Your task to perform on an android device: Search for "dell xps" on amazon, select the first entry, add it to the cart, then select checkout. Image 0: 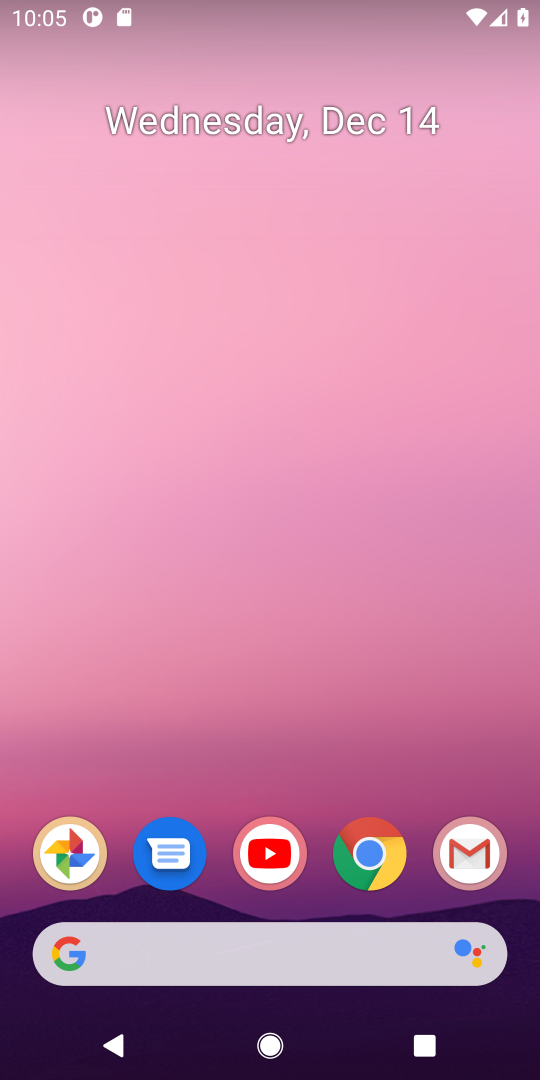
Step 0: click (381, 865)
Your task to perform on an android device: Search for "dell xps" on amazon, select the first entry, add it to the cart, then select checkout. Image 1: 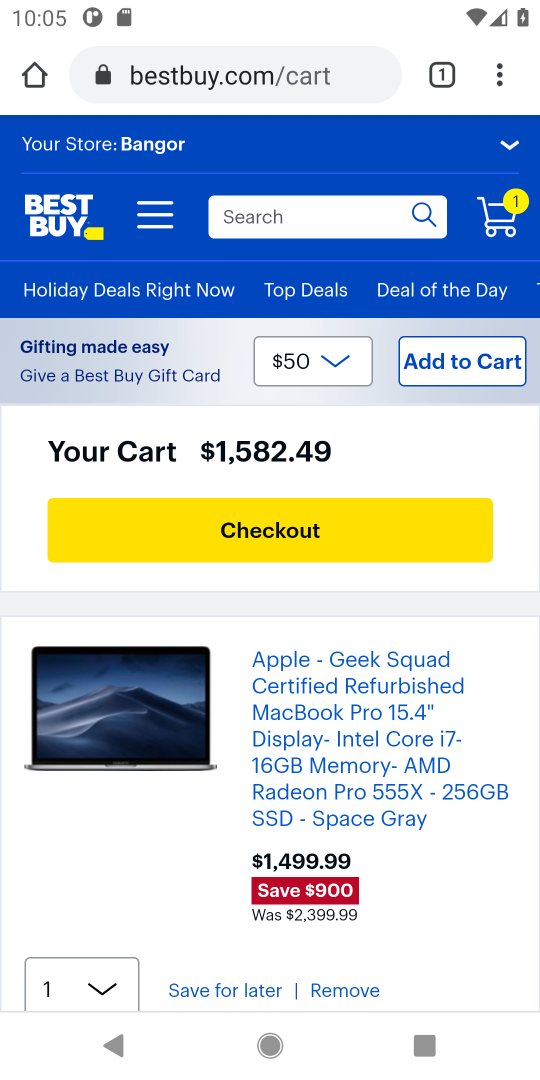
Step 1: click (34, 80)
Your task to perform on an android device: Search for "dell xps" on amazon, select the first entry, add it to the cart, then select checkout. Image 2: 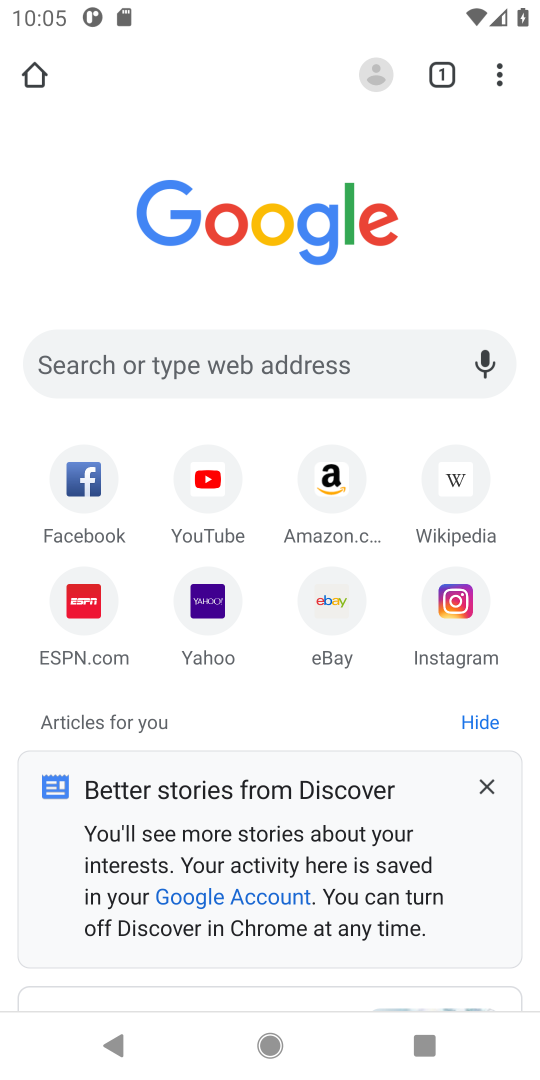
Step 2: click (343, 474)
Your task to perform on an android device: Search for "dell xps" on amazon, select the first entry, add it to the cart, then select checkout. Image 3: 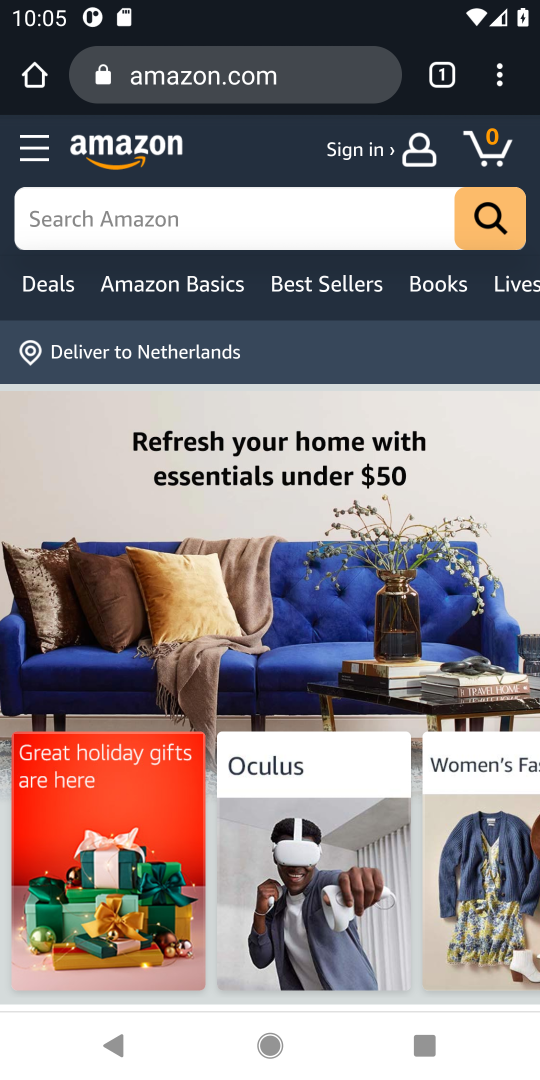
Step 3: click (392, 207)
Your task to perform on an android device: Search for "dell xps" on amazon, select the first entry, add it to the cart, then select checkout. Image 4: 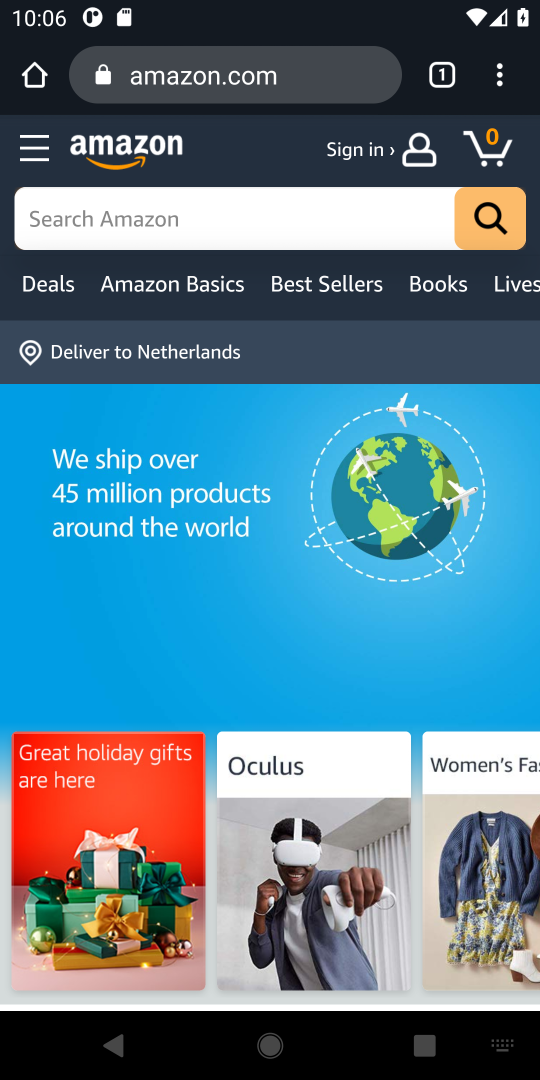
Step 4: press enter
Your task to perform on an android device: Search for "dell xps" on amazon, select the first entry, add it to the cart, then select checkout. Image 5: 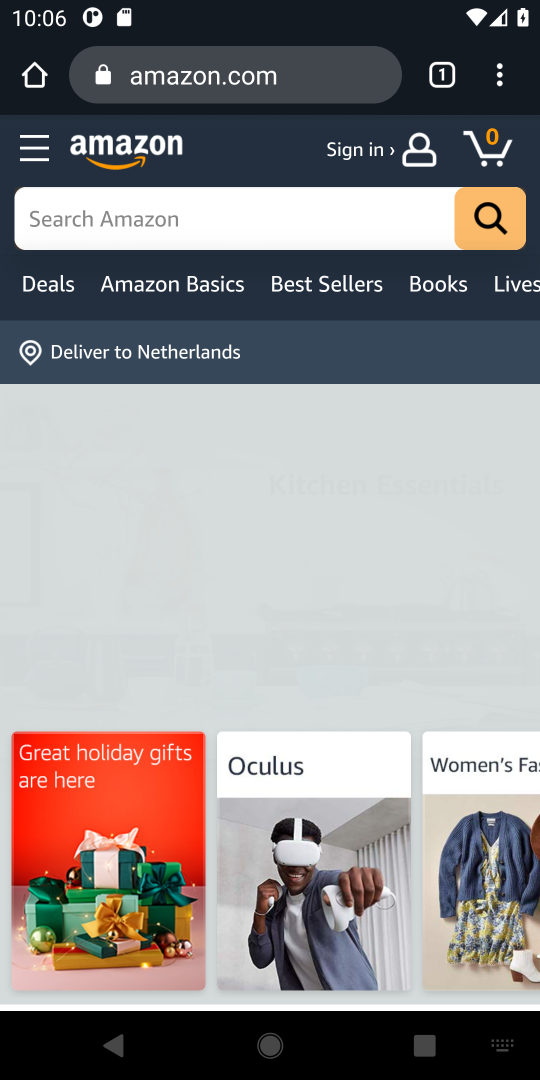
Step 5: type "dell xps"
Your task to perform on an android device: Search for "dell xps" on amazon, select the first entry, add it to the cart, then select checkout. Image 6: 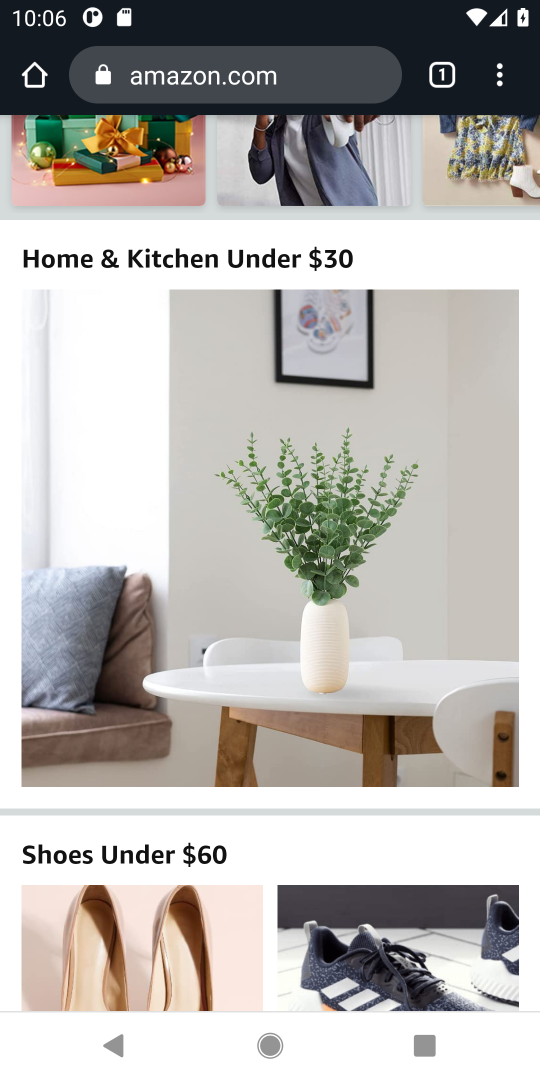
Step 6: press back button
Your task to perform on an android device: Search for "dell xps" on amazon, select the first entry, add it to the cart, then select checkout. Image 7: 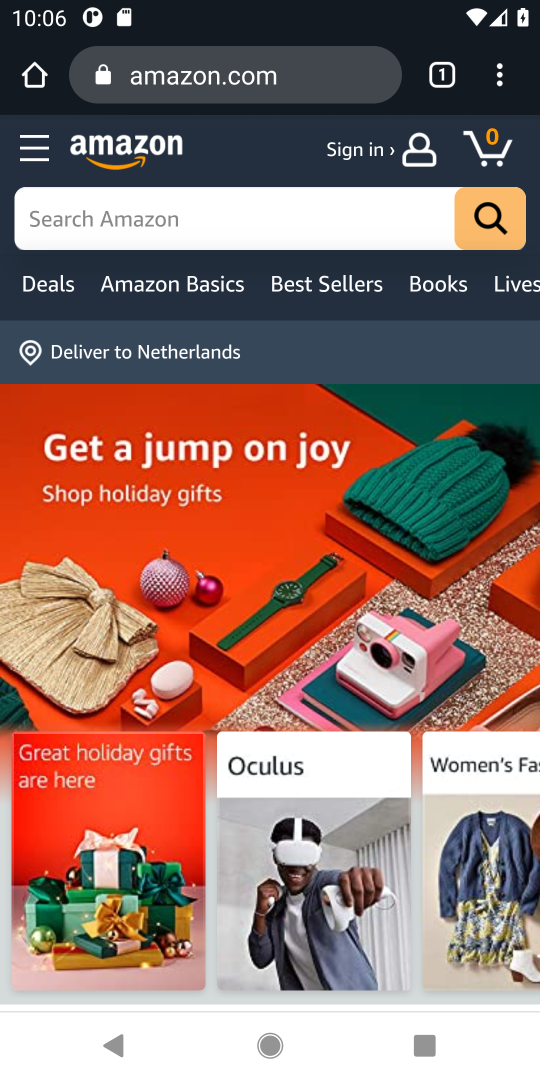
Step 7: click (392, 198)
Your task to perform on an android device: Search for "dell xps" on amazon, select the first entry, add it to the cart, then select checkout. Image 8: 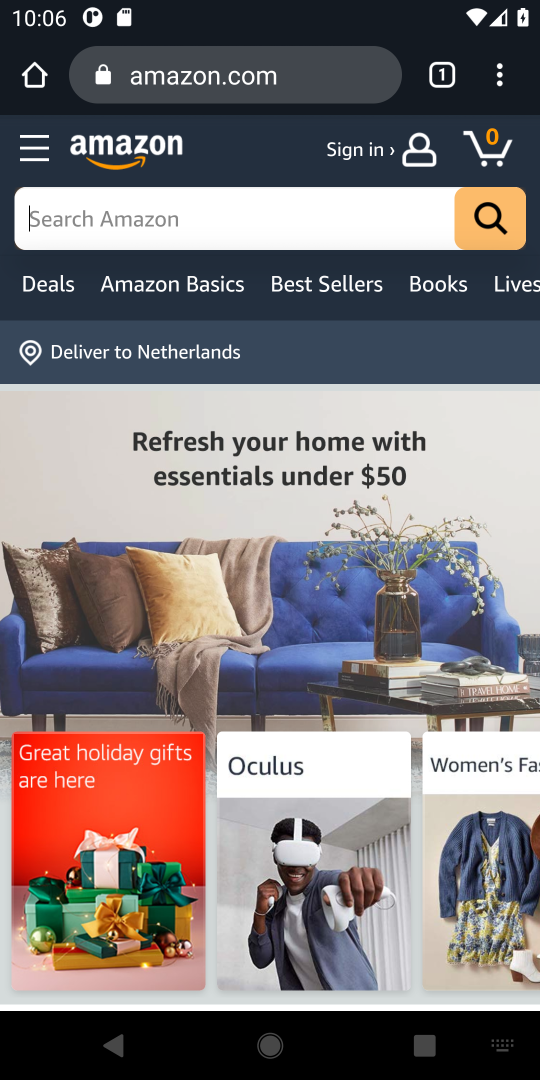
Step 8: click (392, 198)
Your task to perform on an android device: Search for "dell xps" on amazon, select the first entry, add it to the cart, then select checkout. Image 9: 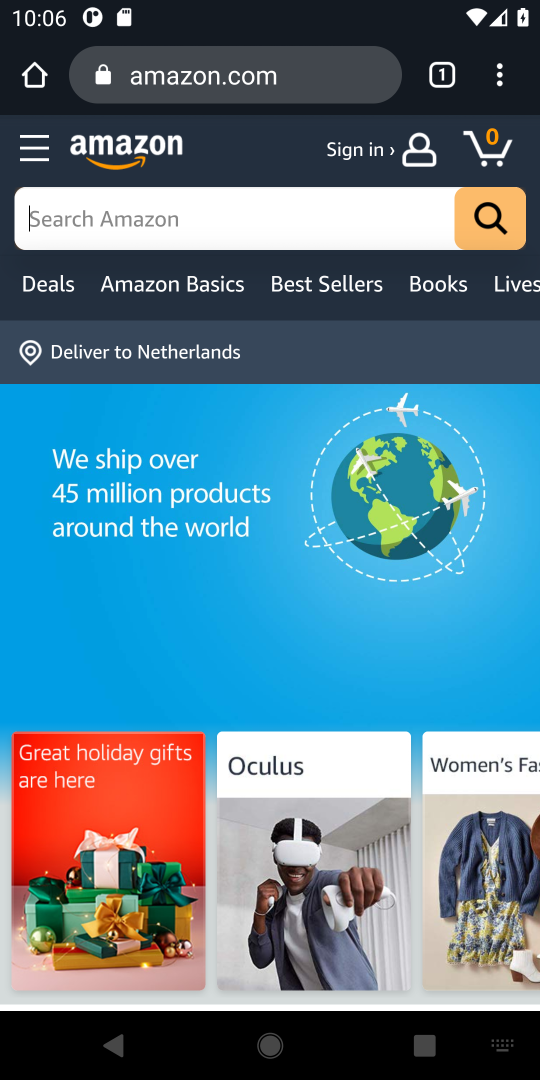
Step 9: press enter
Your task to perform on an android device: Search for "dell xps" on amazon, select the first entry, add it to the cart, then select checkout. Image 10: 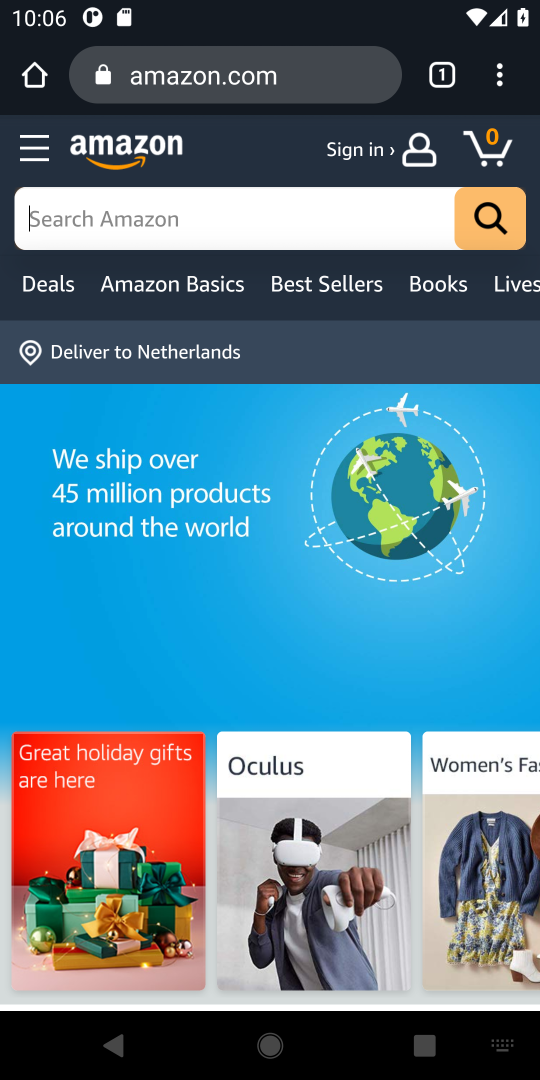
Step 10: type "dell xps"
Your task to perform on an android device: Search for "dell xps" on amazon, select the first entry, add it to the cart, then select checkout. Image 11: 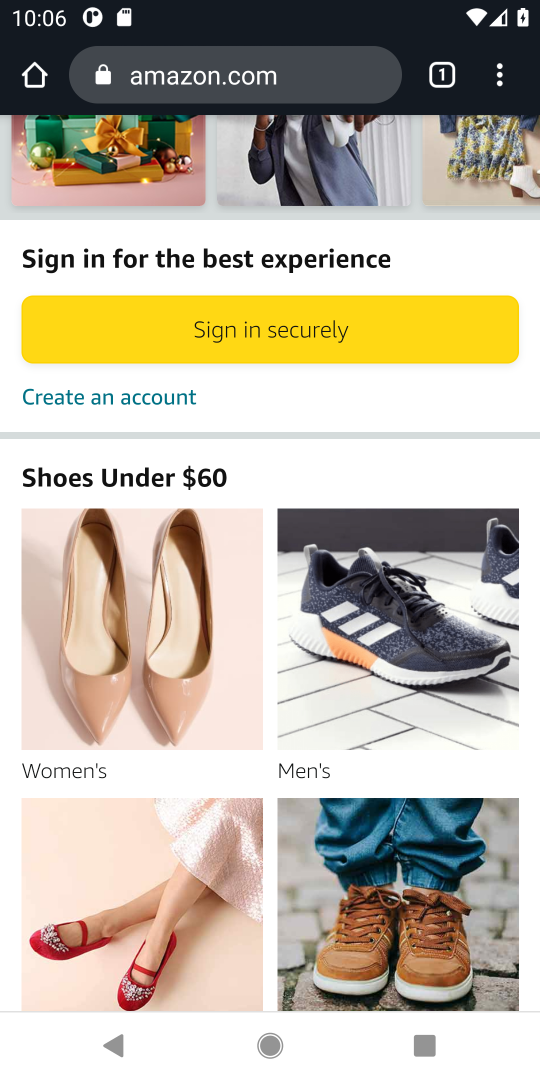
Step 11: press back button
Your task to perform on an android device: Search for "dell xps" on amazon, select the first entry, add it to the cart, then select checkout. Image 12: 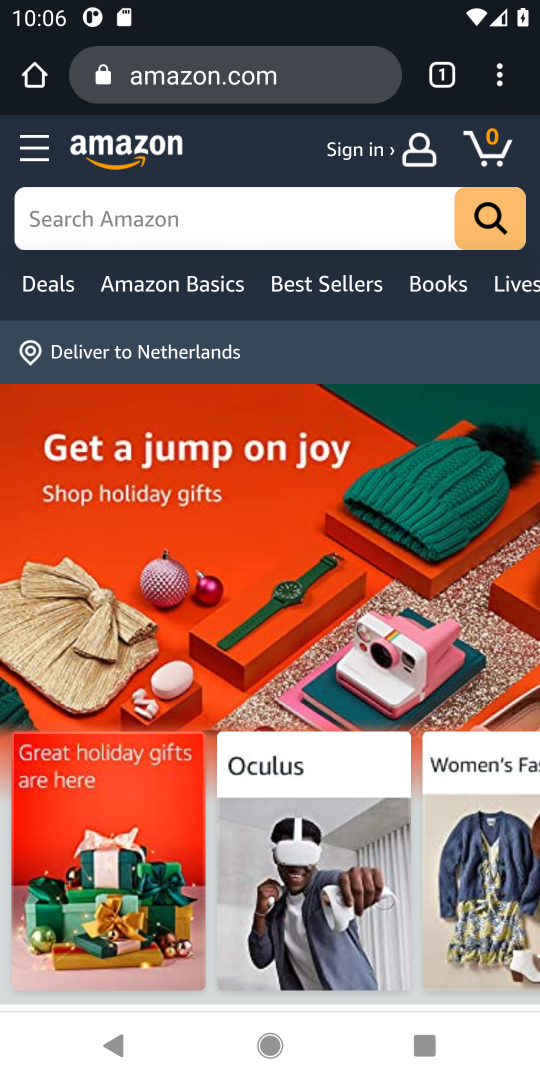
Step 12: click (386, 209)
Your task to perform on an android device: Search for "dell xps" on amazon, select the first entry, add it to the cart, then select checkout. Image 13: 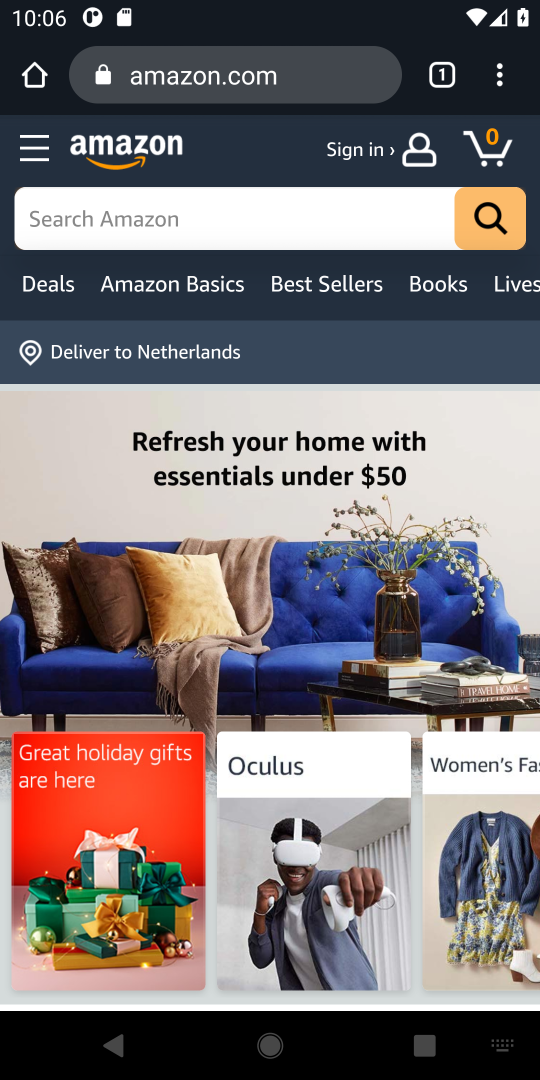
Step 13: press enter
Your task to perform on an android device: Search for "dell xps" on amazon, select the first entry, add it to the cart, then select checkout. Image 14: 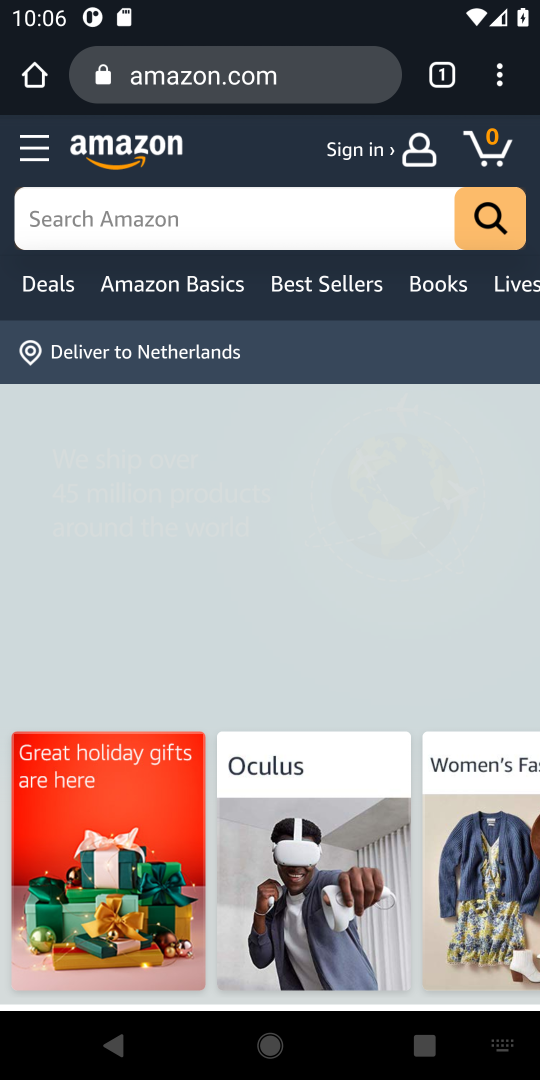
Step 14: type "dell xps"
Your task to perform on an android device: Search for "dell xps" on amazon, select the first entry, add it to the cart, then select checkout. Image 15: 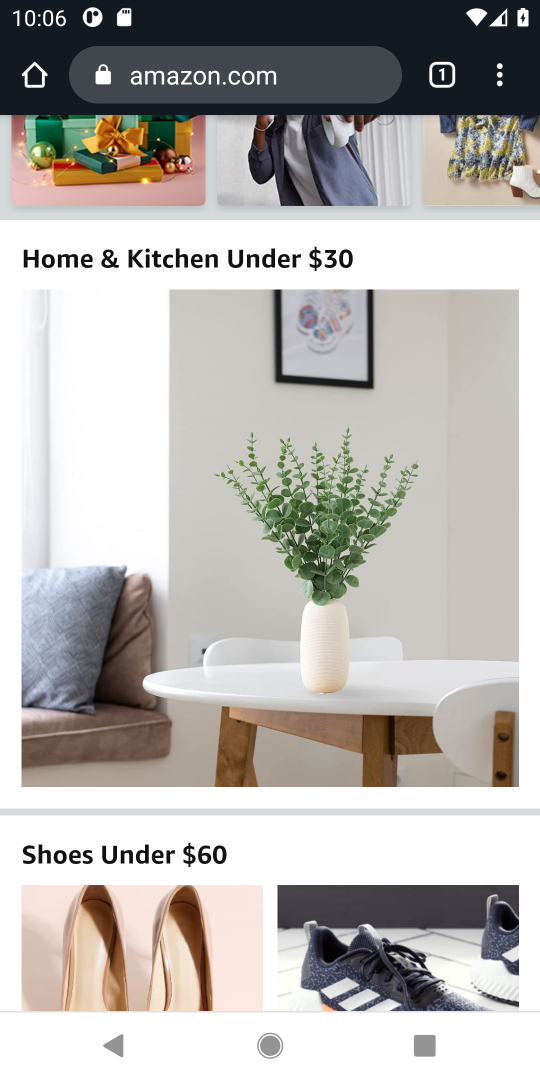
Step 15: task complete